Your task to perform on an android device: snooze an email in the gmail app Image 0: 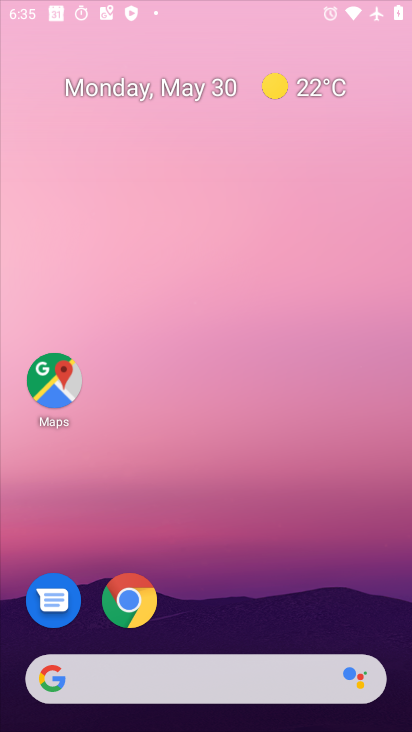
Step 0: press home button
Your task to perform on an android device: snooze an email in the gmail app Image 1: 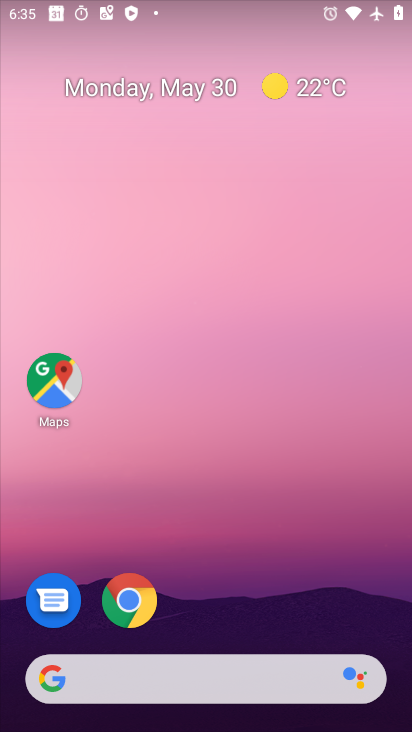
Step 1: drag from (262, 618) to (283, 97)
Your task to perform on an android device: snooze an email in the gmail app Image 2: 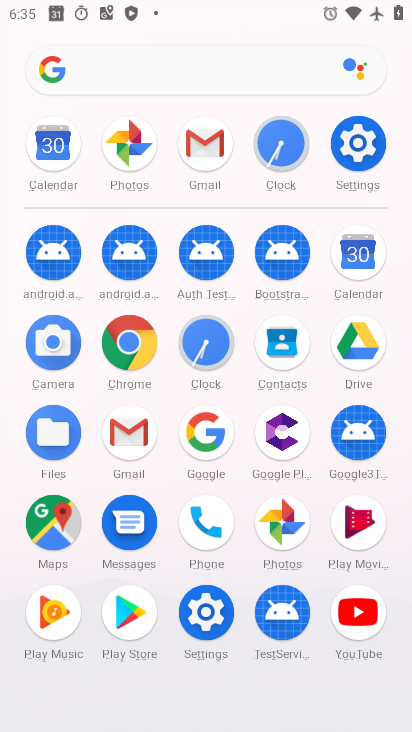
Step 2: click (213, 154)
Your task to perform on an android device: snooze an email in the gmail app Image 3: 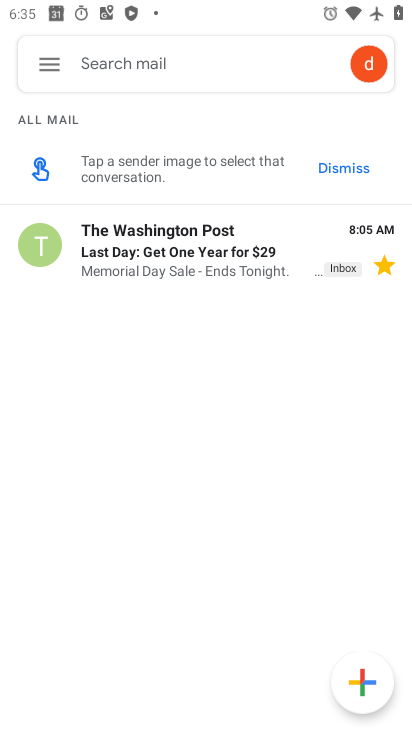
Step 3: click (197, 257)
Your task to perform on an android device: snooze an email in the gmail app Image 4: 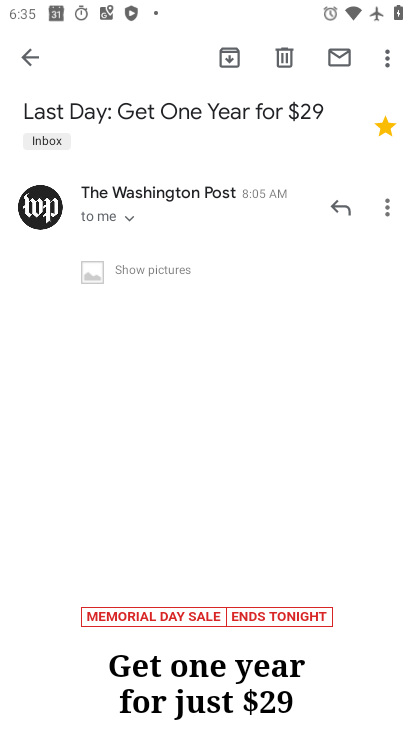
Step 4: click (391, 56)
Your task to perform on an android device: snooze an email in the gmail app Image 5: 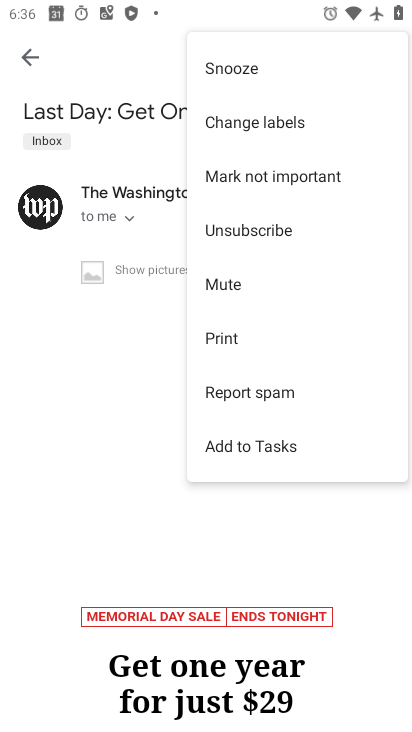
Step 5: click (234, 70)
Your task to perform on an android device: snooze an email in the gmail app Image 6: 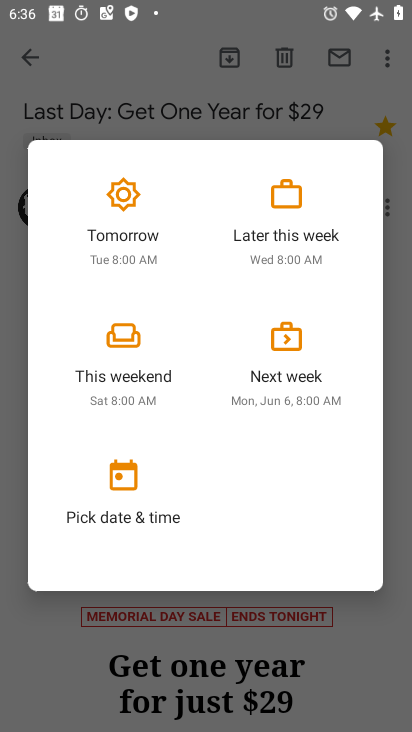
Step 6: click (132, 203)
Your task to perform on an android device: snooze an email in the gmail app Image 7: 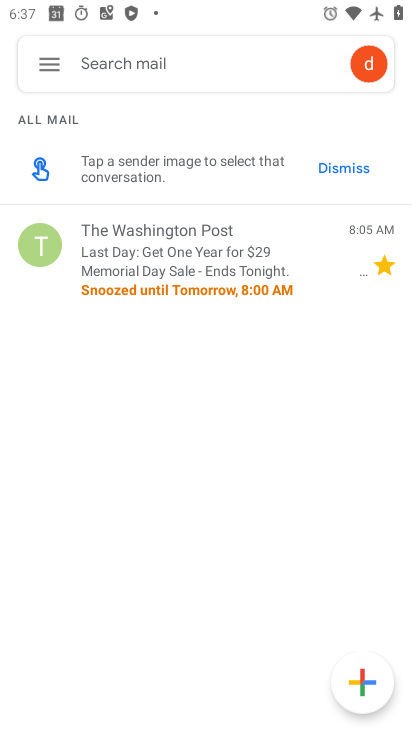
Step 7: task complete